Your task to perform on an android device: Check the news Image 0: 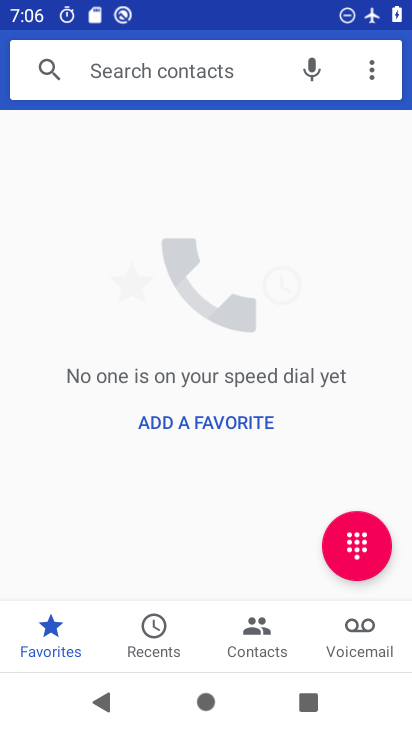
Step 0: press home button
Your task to perform on an android device: Check the news Image 1: 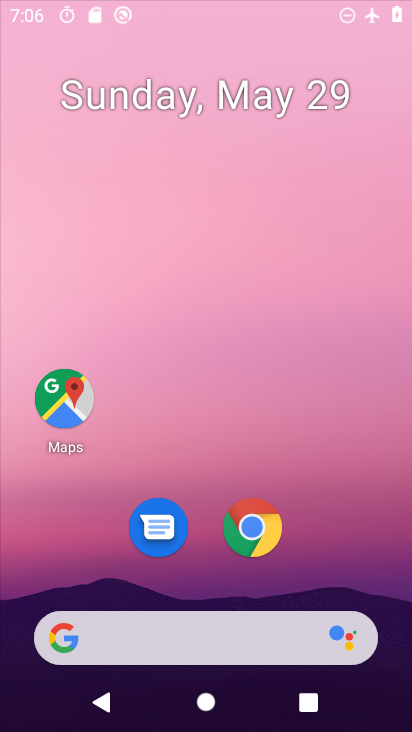
Step 1: drag from (388, 651) to (319, 16)
Your task to perform on an android device: Check the news Image 2: 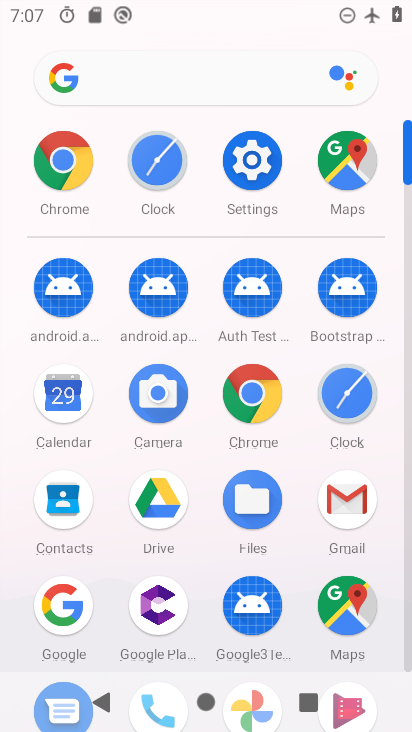
Step 2: click (259, 418)
Your task to perform on an android device: Check the news Image 3: 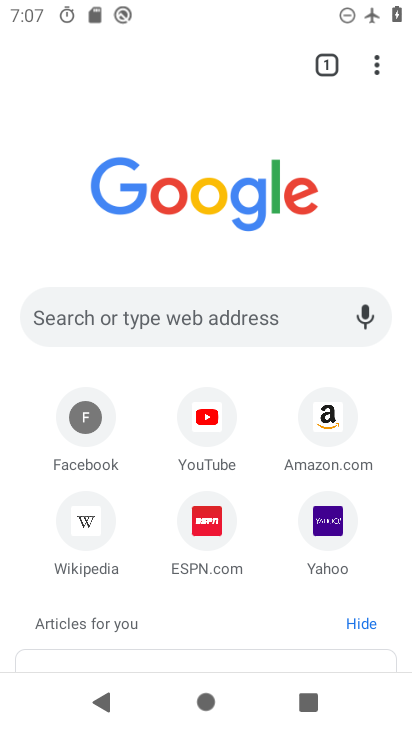
Step 3: press home button
Your task to perform on an android device: Check the news Image 4: 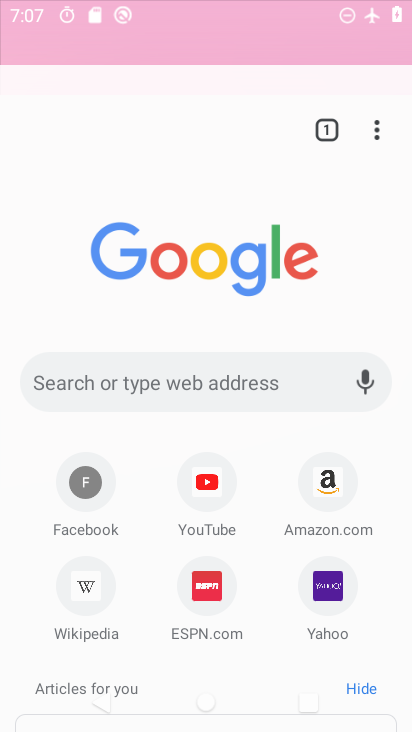
Step 4: drag from (365, 605) to (279, 81)
Your task to perform on an android device: Check the news Image 5: 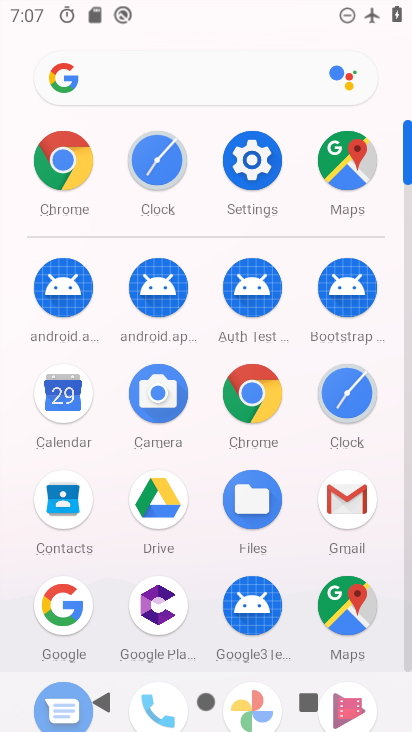
Step 5: click (66, 596)
Your task to perform on an android device: Check the news Image 6: 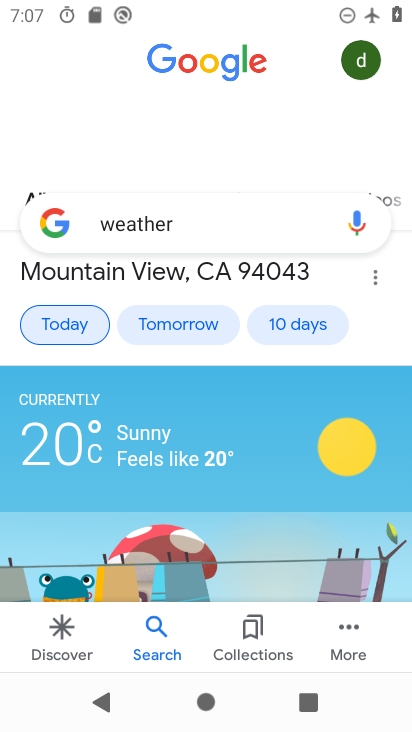
Step 6: press back button
Your task to perform on an android device: Check the news Image 7: 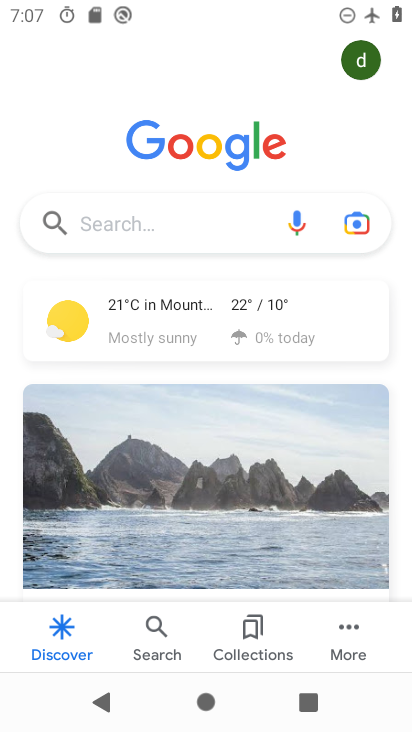
Step 7: click (147, 224)
Your task to perform on an android device: Check the news Image 8: 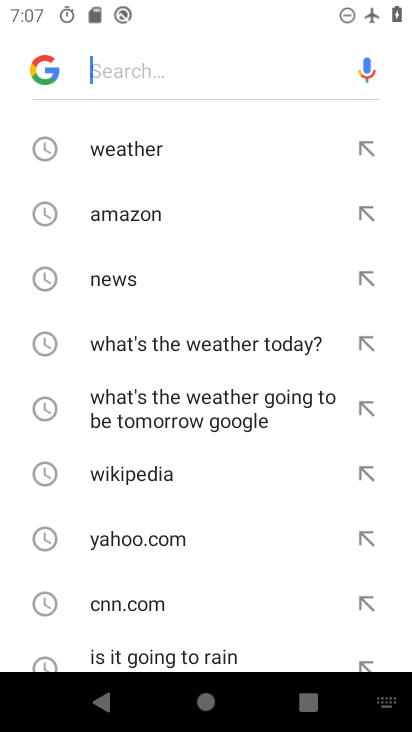
Step 8: click (142, 282)
Your task to perform on an android device: Check the news Image 9: 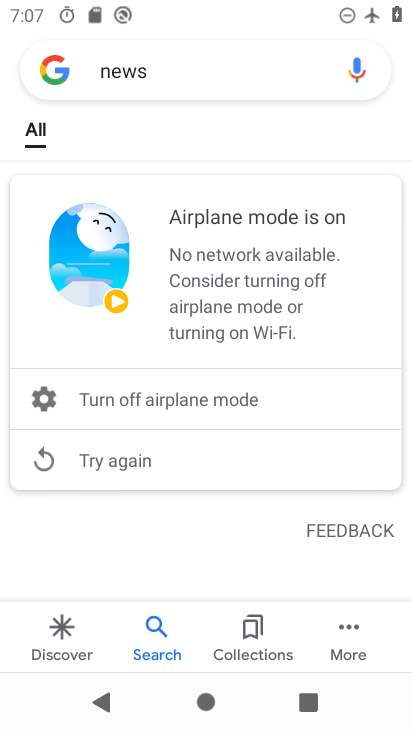
Step 9: task complete